Your task to perform on an android device: Go to privacy settings Image 0: 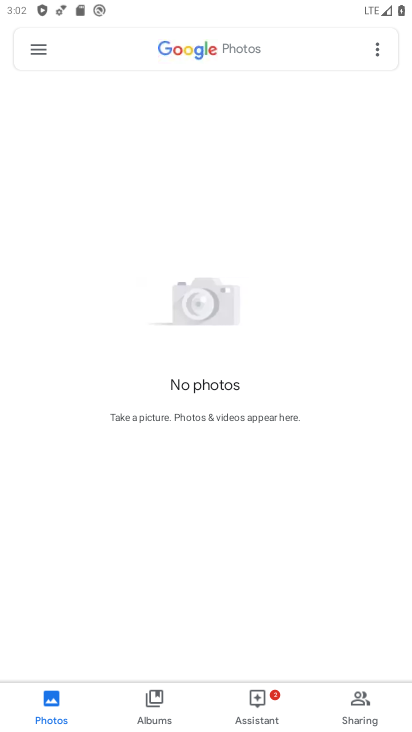
Step 0: press home button
Your task to perform on an android device: Go to privacy settings Image 1: 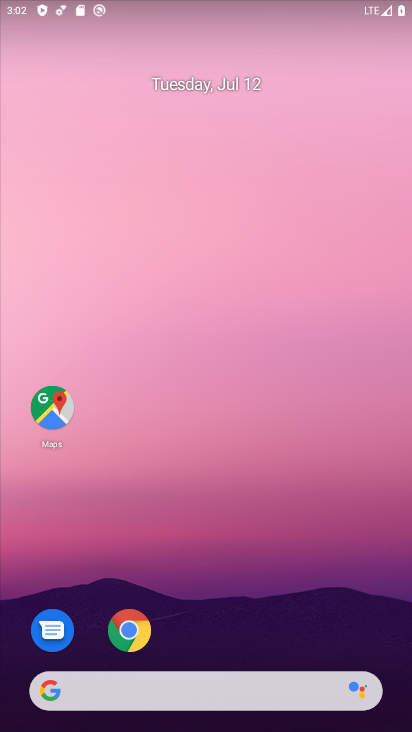
Step 1: drag from (166, 640) to (171, 4)
Your task to perform on an android device: Go to privacy settings Image 2: 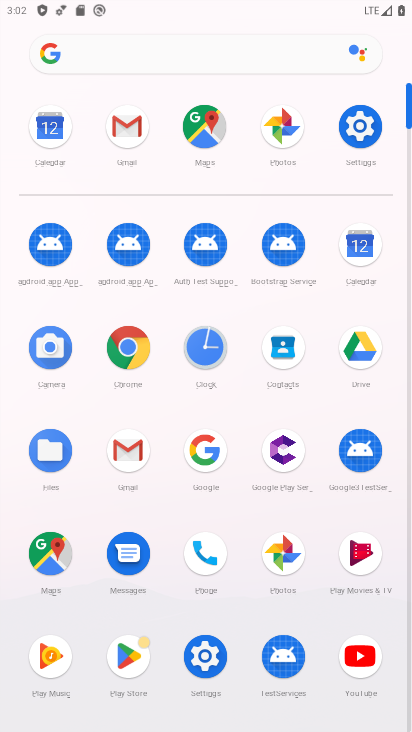
Step 2: click (202, 664)
Your task to perform on an android device: Go to privacy settings Image 3: 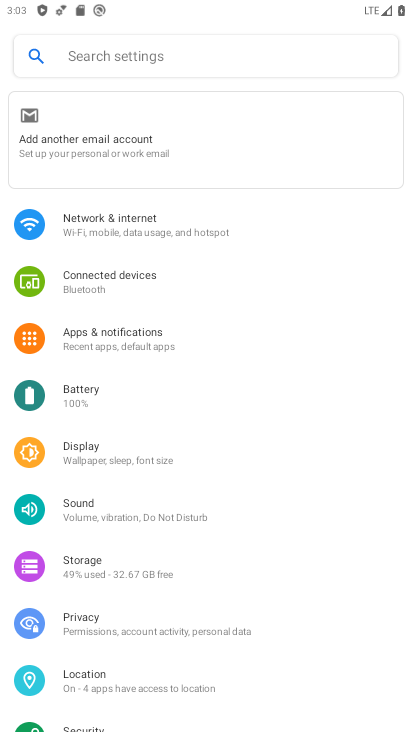
Step 3: click (118, 632)
Your task to perform on an android device: Go to privacy settings Image 4: 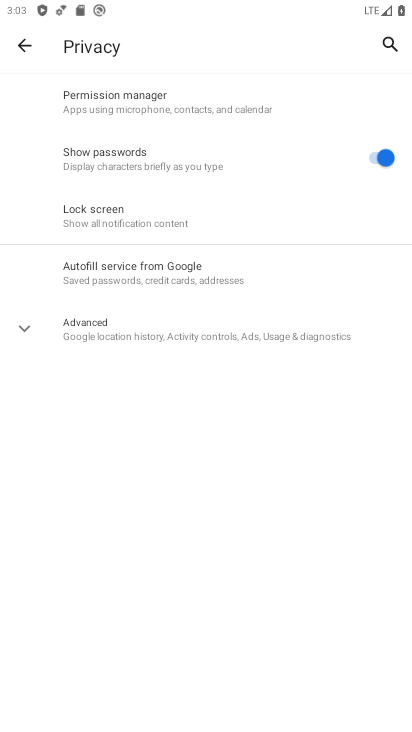
Step 4: task complete